Your task to perform on an android device: toggle improve location accuracy Image 0: 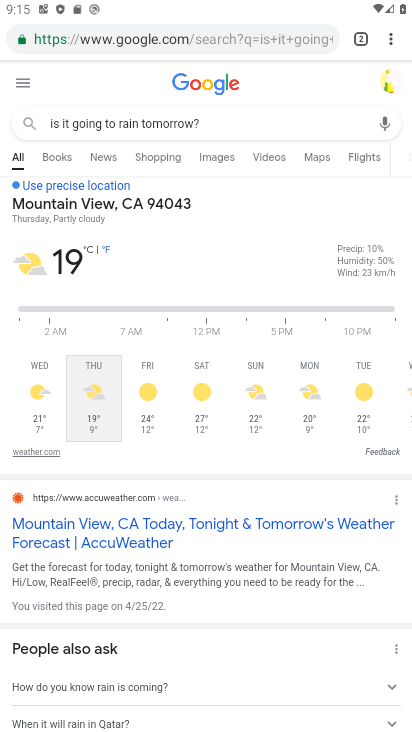
Step 0: press home button
Your task to perform on an android device: toggle improve location accuracy Image 1: 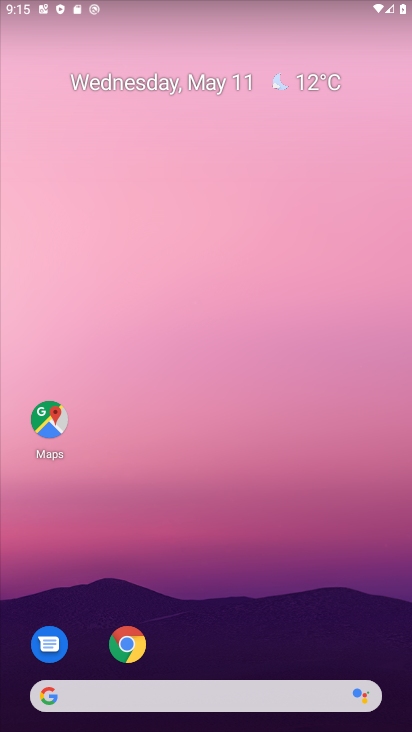
Step 1: drag from (257, 610) to (236, 311)
Your task to perform on an android device: toggle improve location accuracy Image 2: 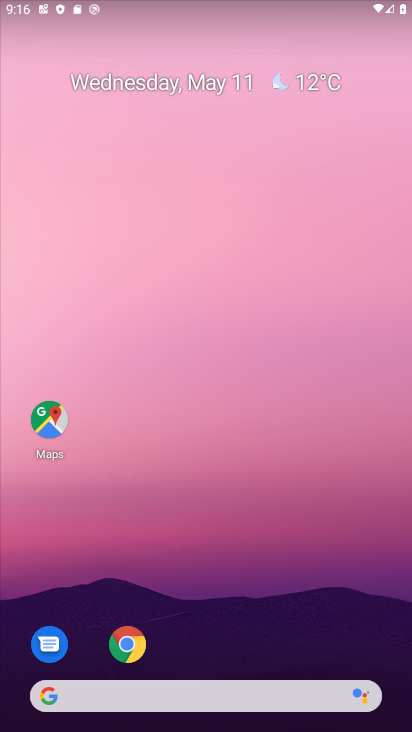
Step 2: drag from (210, 627) to (171, 351)
Your task to perform on an android device: toggle improve location accuracy Image 3: 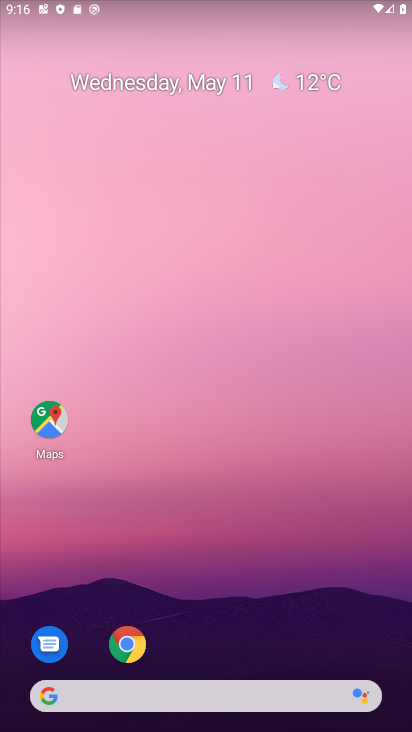
Step 3: drag from (194, 642) to (190, 187)
Your task to perform on an android device: toggle improve location accuracy Image 4: 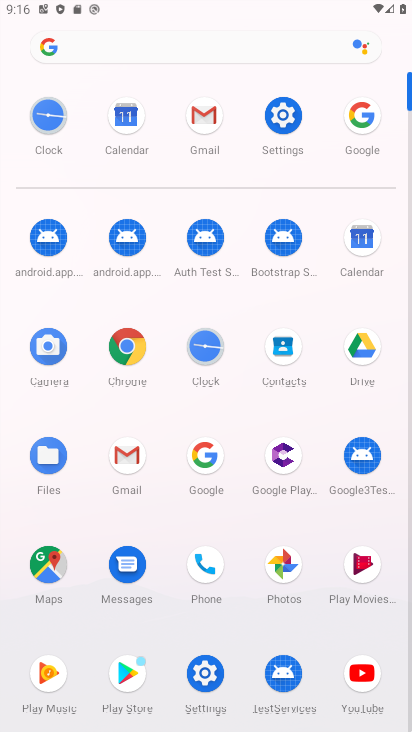
Step 4: click (275, 130)
Your task to perform on an android device: toggle improve location accuracy Image 5: 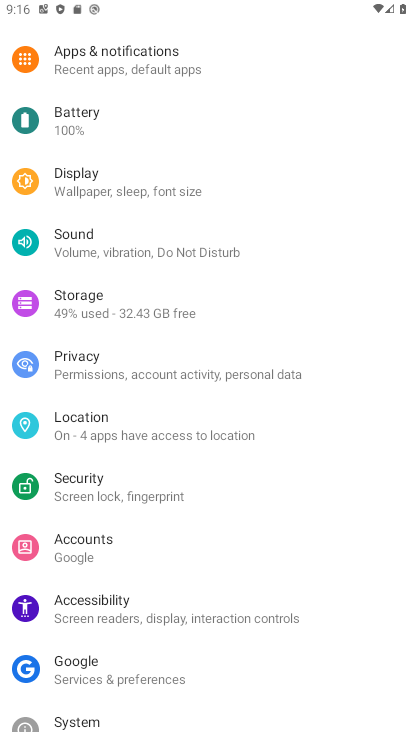
Step 5: click (105, 423)
Your task to perform on an android device: toggle improve location accuracy Image 6: 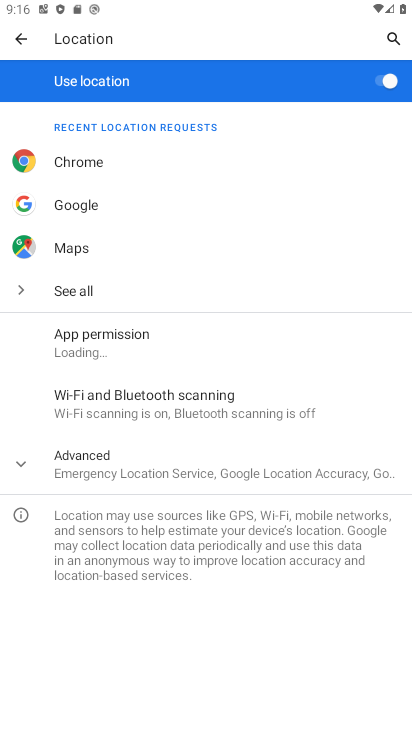
Step 6: click (106, 470)
Your task to perform on an android device: toggle improve location accuracy Image 7: 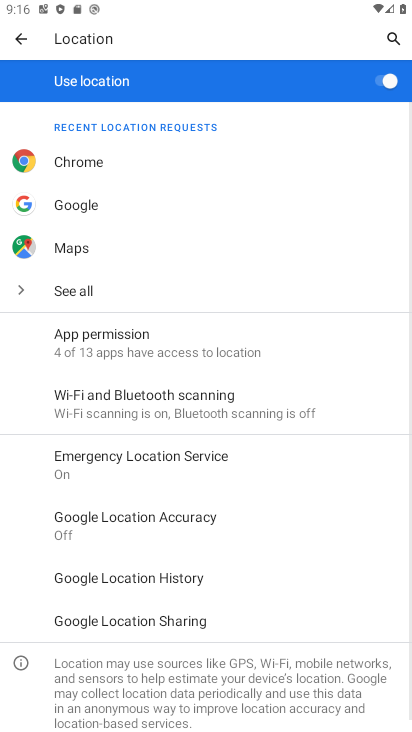
Step 7: click (108, 518)
Your task to perform on an android device: toggle improve location accuracy Image 8: 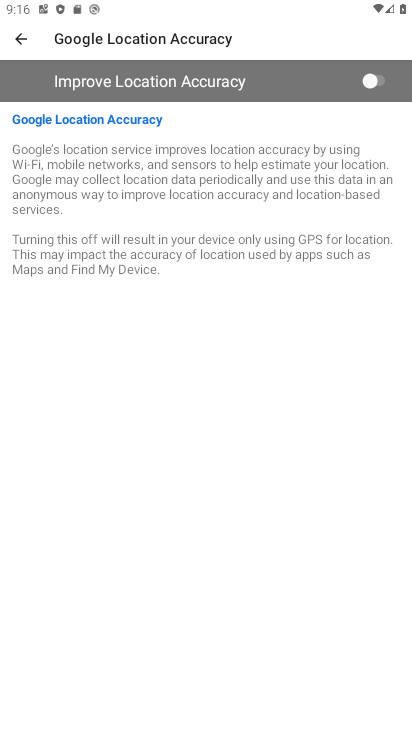
Step 8: click (370, 82)
Your task to perform on an android device: toggle improve location accuracy Image 9: 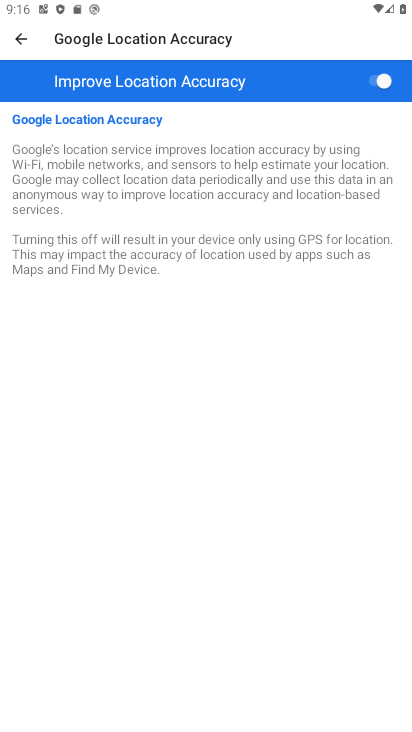
Step 9: task complete